Your task to perform on an android device: open app "Reddit" (install if not already installed) and go to login screen Image 0: 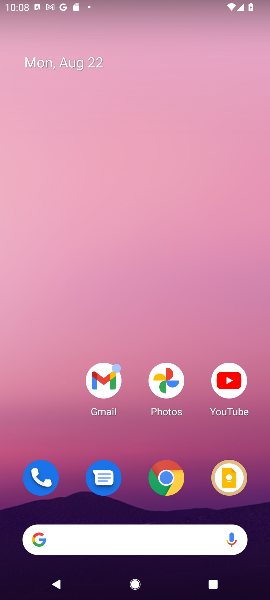
Step 0: drag from (154, 519) to (138, 46)
Your task to perform on an android device: open app "Reddit" (install if not already installed) and go to login screen Image 1: 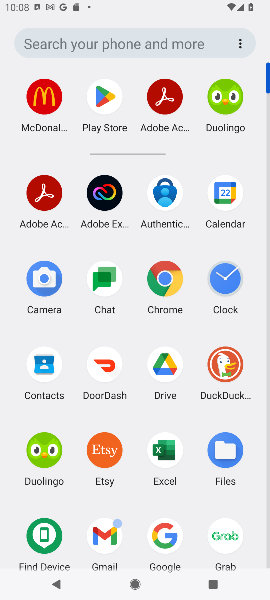
Step 1: click (110, 101)
Your task to perform on an android device: open app "Reddit" (install if not already installed) and go to login screen Image 2: 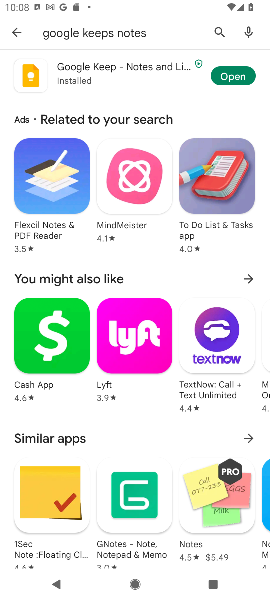
Step 2: click (216, 46)
Your task to perform on an android device: open app "Reddit" (install if not already installed) and go to login screen Image 3: 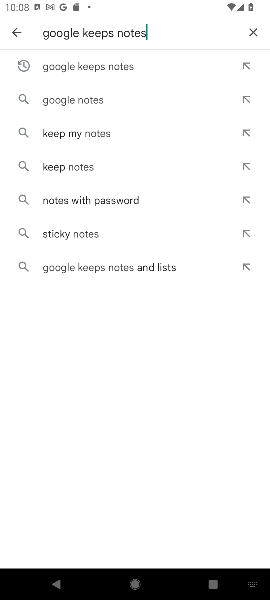
Step 3: click (260, 33)
Your task to perform on an android device: open app "Reddit" (install if not already installed) and go to login screen Image 4: 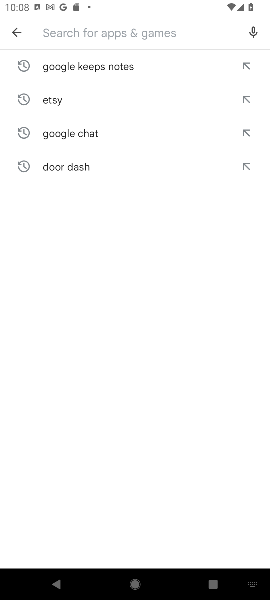
Step 4: type "reddit"
Your task to perform on an android device: open app "Reddit" (install if not already installed) and go to login screen Image 5: 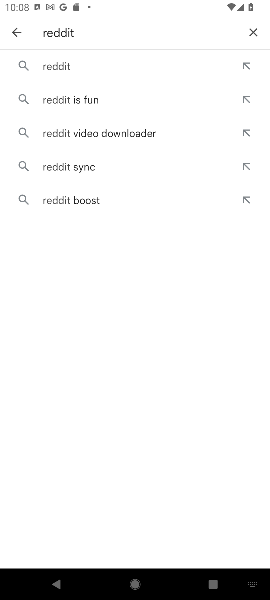
Step 5: click (66, 72)
Your task to perform on an android device: open app "Reddit" (install if not already installed) and go to login screen Image 6: 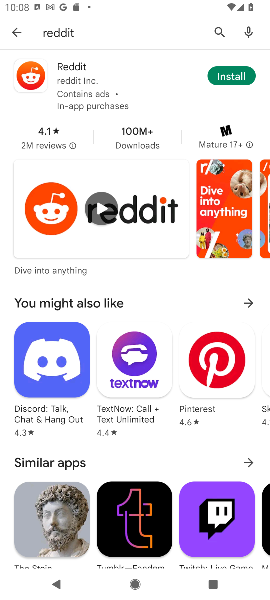
Step 6: click (214, 74)
Your task to perform on an android device: open app "Reddit" (install if not already installed) and go to login screen Image 7: 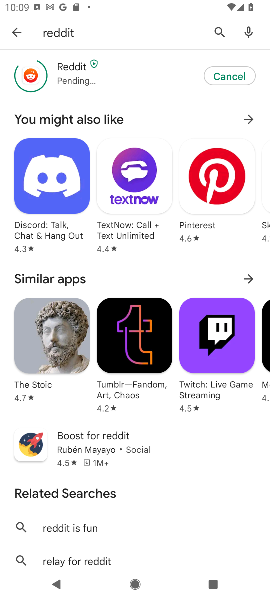
Step 7: task complete